Your task to perform on an android device: Go to Android settings Image 0: 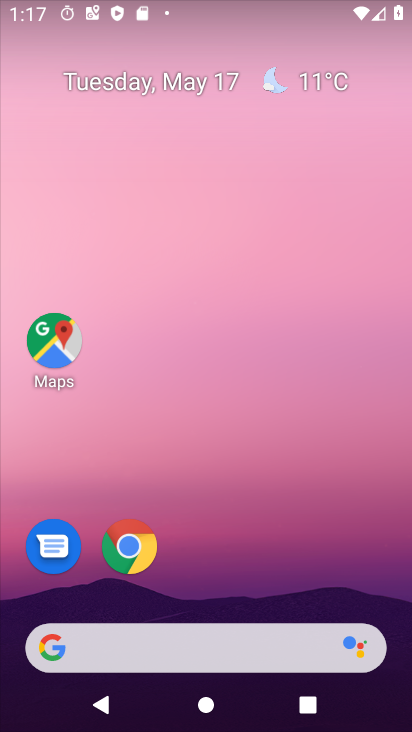
Step 0: press home button
Your task to perform on an android device: Go to Android settings Image 1: 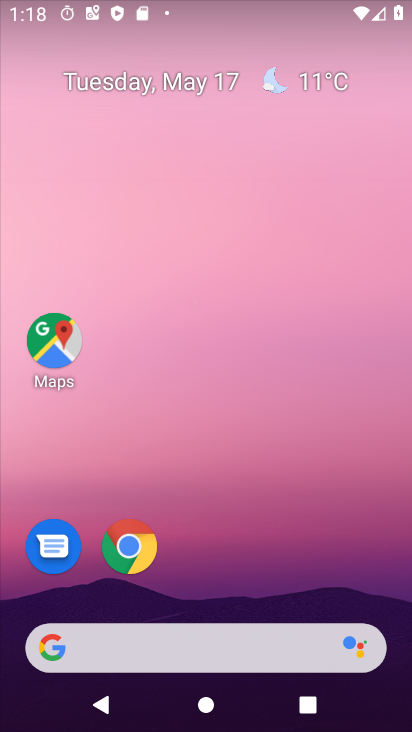
Step 1: drag from (270, 341) to (304, 79)
Your task to perform on an android device: Go to Android settings Image 2: 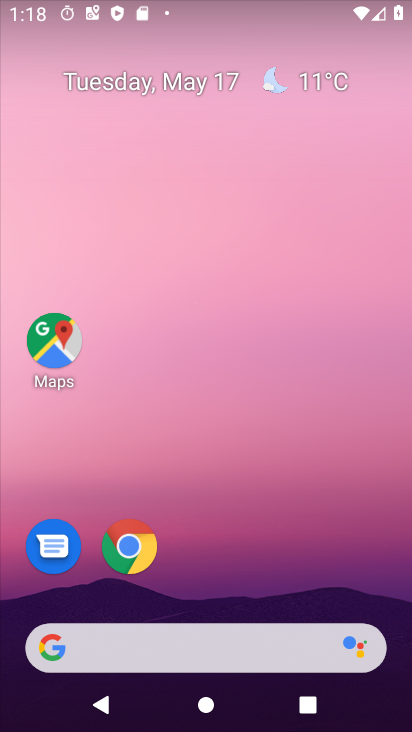
Step 2: drag from (174, 644) to (358, 54)
Your task to perform on an android device: Go to Android settings Image 3: 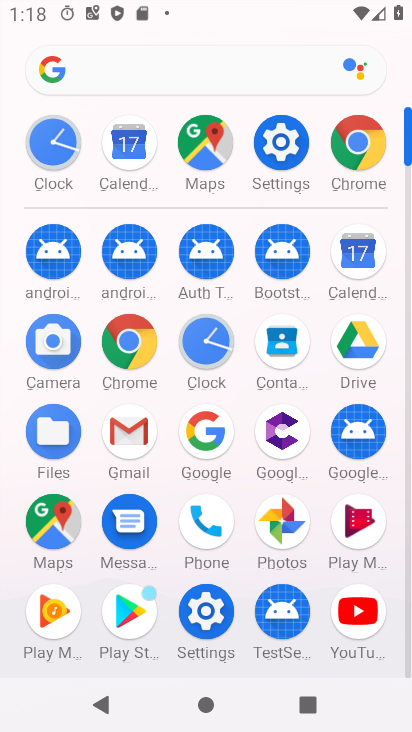
Step 3: click (287, 147)
Your task to perform on an android device: Go to Android settings Image 4: 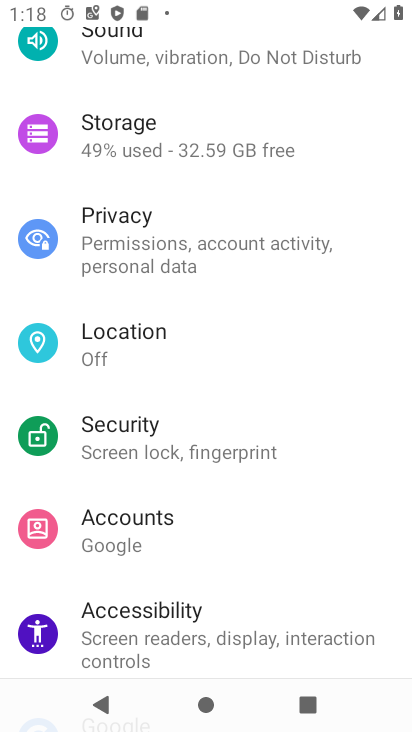
Step 4: task complete